Your task to perform on an android device: delete location history Image 0: 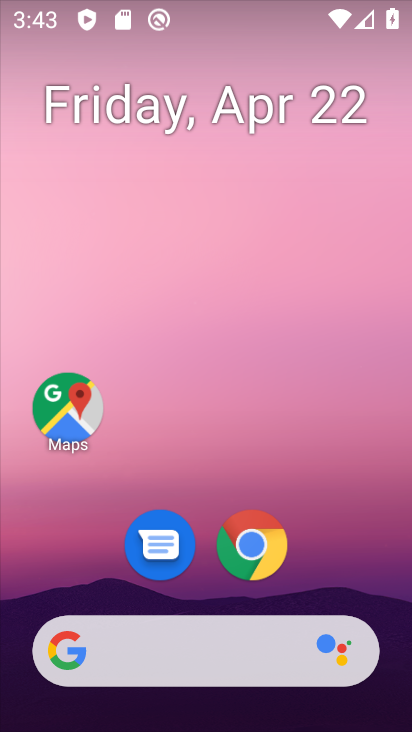
Step 0: drag from (217, 333) to (209, 192)
Your task to perform on an android device: delete location history Image 1: 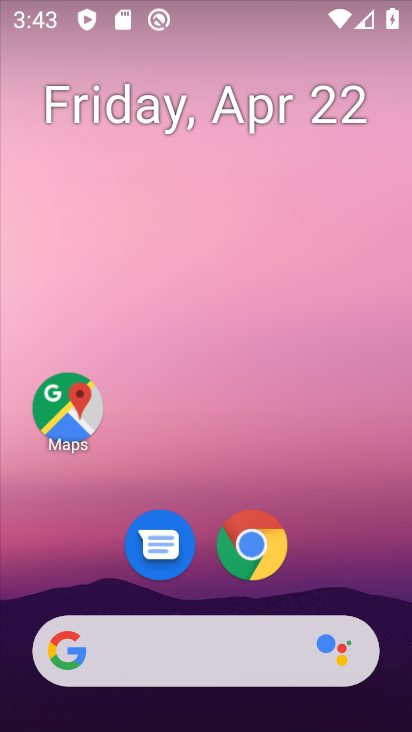
Step 1: drag from (228, 441) to (174, 8)
Your task to perform on an android device: delete location history Image 2: 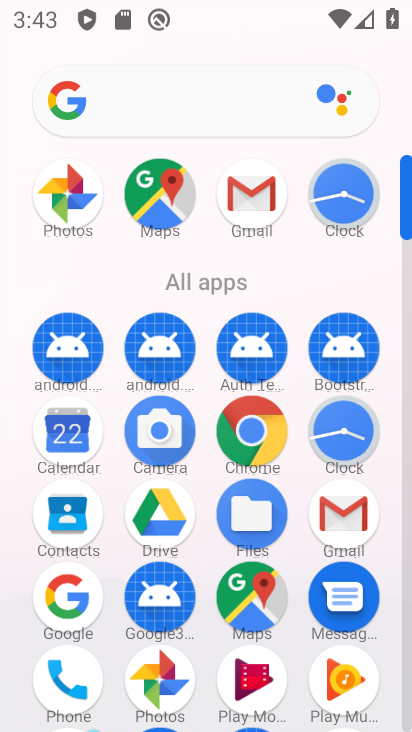
Step 2: drag from (216, 281) to (176, 73)
Your task to perform on an android device: delete location history Image 3: 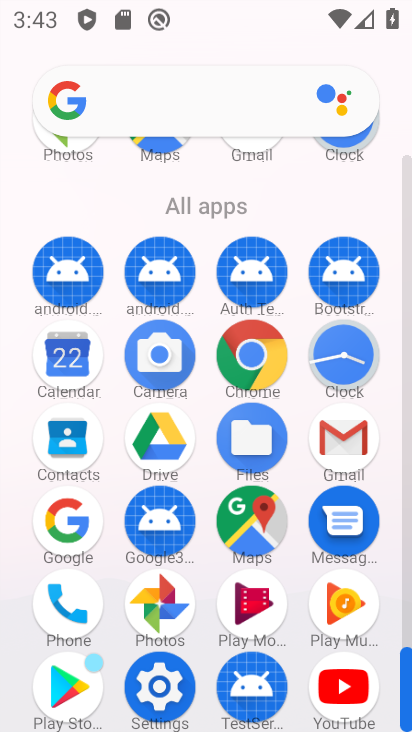
Step 3: click (159, 669)
Your task to perform on an android device: delete location history Image 4: 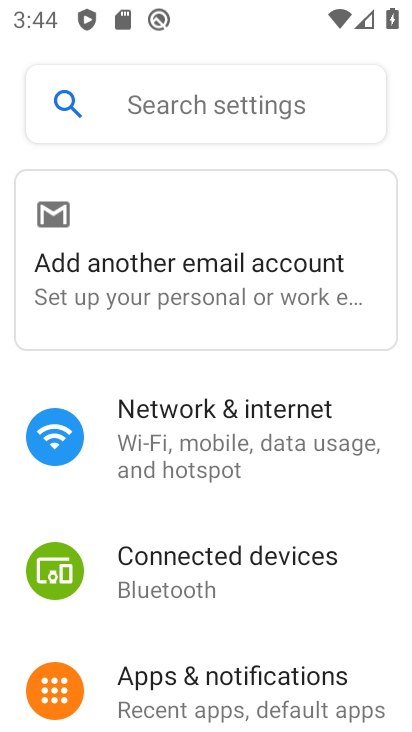
Step 4: drag from (270, 615) to (192, 212)
Your task to perform on an android device: delete location history Image 5: 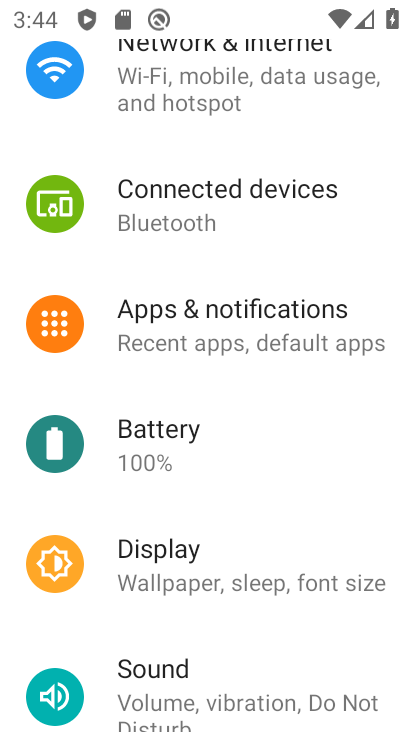
Step 5: drag from (283, 615) to (215, 184)
Your task to perform on an android device: delete location history Image 6: 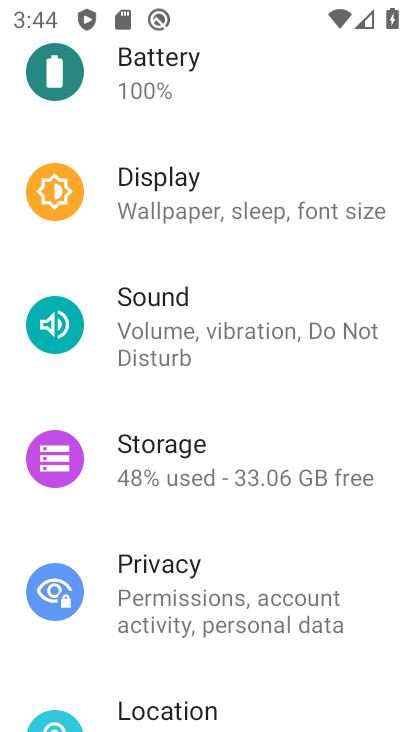
Step 6: click (229, 710)
Your task to perform on an android device: delete location history Image 7: 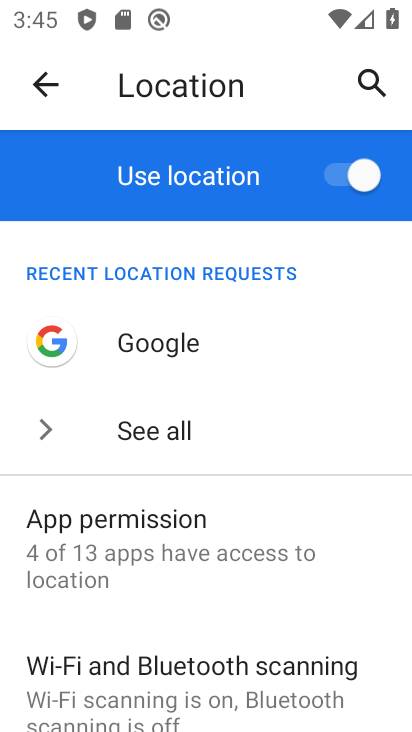
Step 7: drag from (211, 566) to (157, 214)
Your task to perform on an android device: delete location history Image 8: 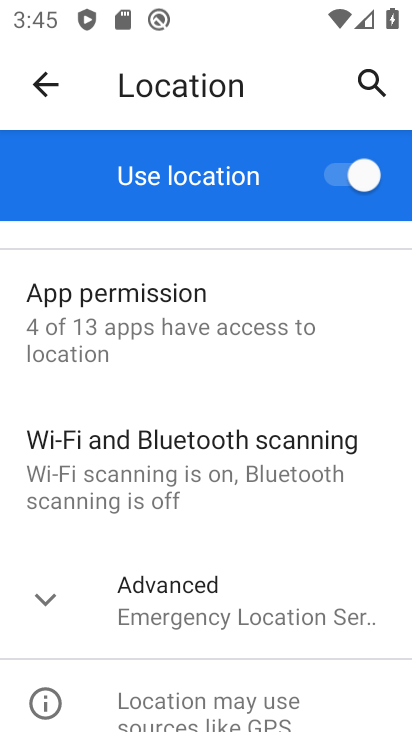
Step 8: click (206, 620)
Your task to perform on an android device: delete location history Image 9: 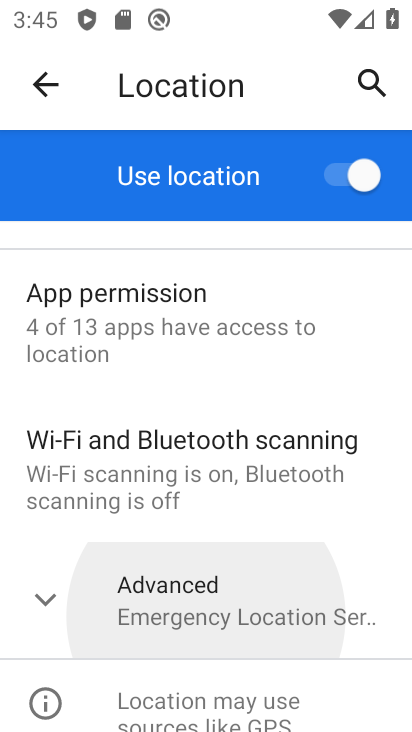
Step 9: drag from (197, 580) to (138, 226)
Your task to perform on an android device: delete location history Image 10: 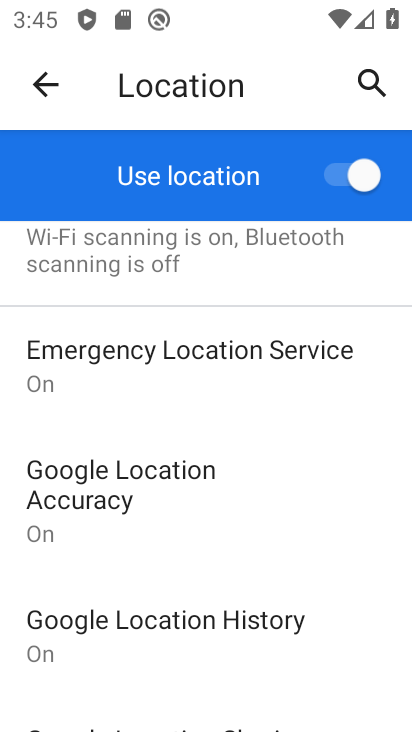
Step 10: click (189, 652)
Your task to perform on an android device: delete location history Image 11: 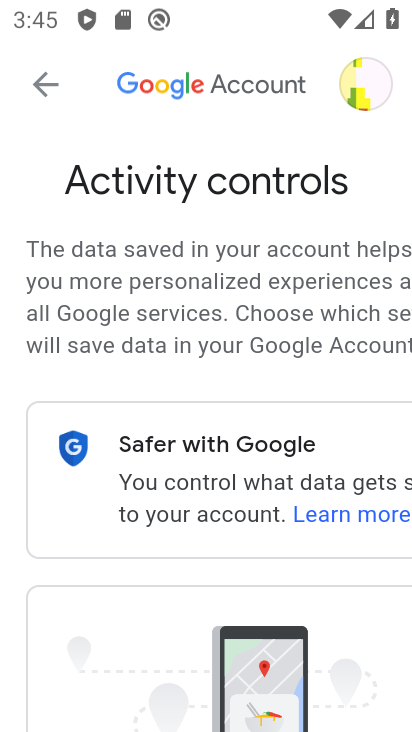
Step 11: drag from (250, 590) to (216, 289)
Your task to perform on an android device: delete location history Image 12: 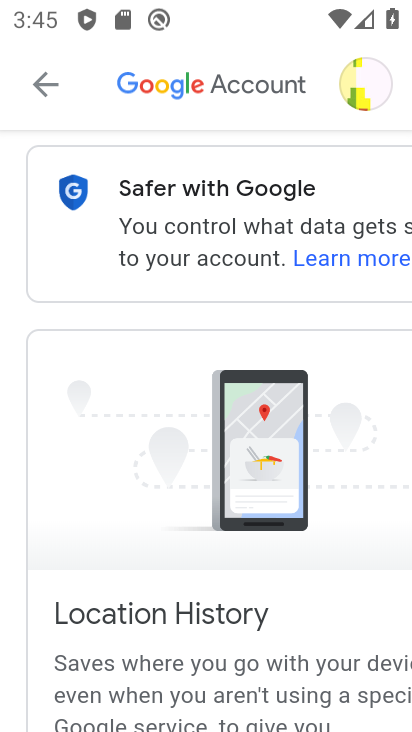
Step 12: drag from (304, 584) to (238, 221)
Your task to perform on an android device: delete location history Image 13: 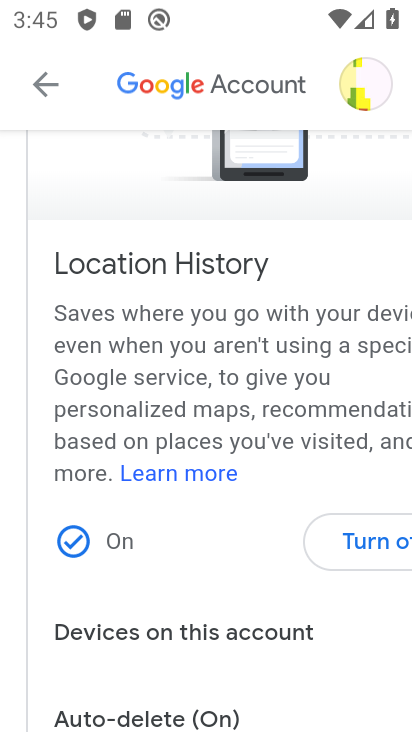
Step 13: drag from (336, 577) to (278, 266)
Your task to perform on an android device: delete location history Image 14: 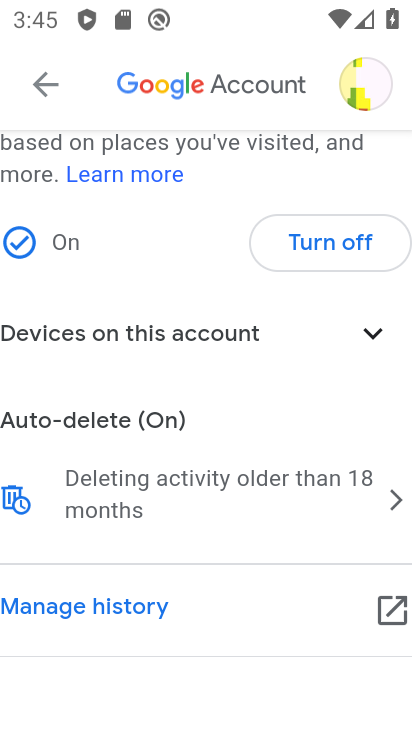
Step 14: click (303, 505)
Your task to perform on an android device: delete location history Image 15: 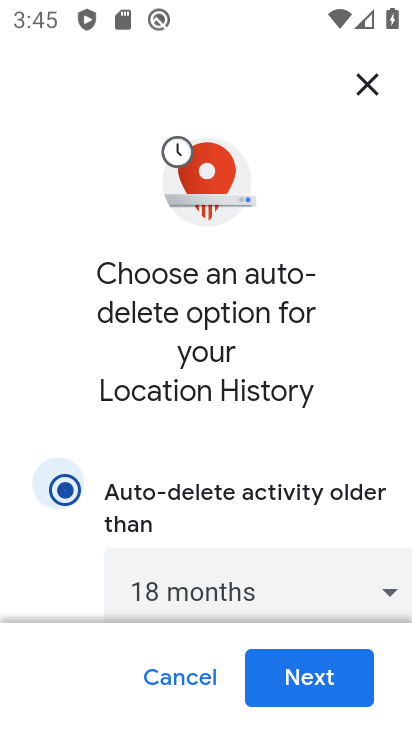
Step 15: drag from (252, 543) to (221, 336)
Your task to perform on an android device: delete location history Image 16: 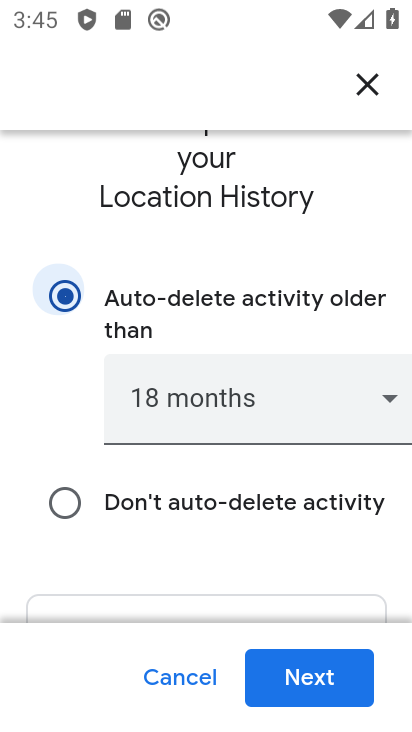
Step 16: click (292, 407)
Your task to perform on an android device: delete location history Image 17: 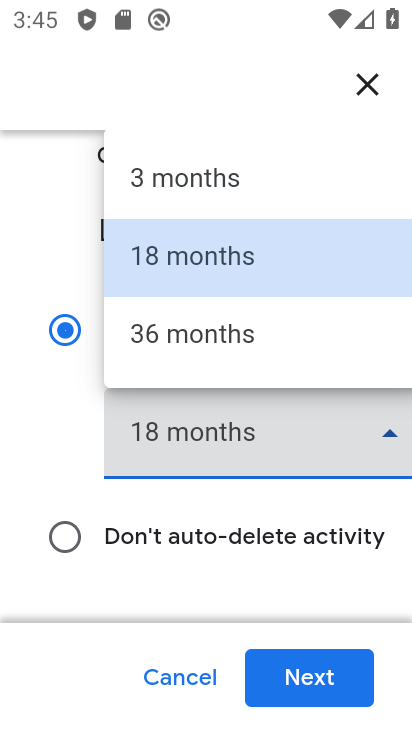
Step 17: click (135, 175)
Your task to perform on an android device: delete location history Image 18: 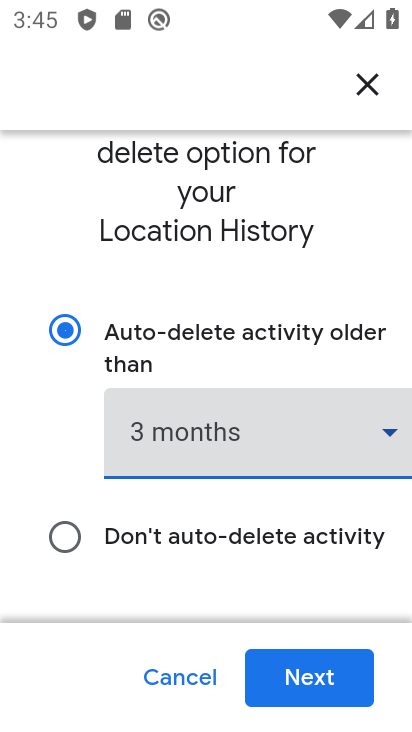
Step 18: click (320, 690)
Your task to perform on an android device: delete location history Image 19: 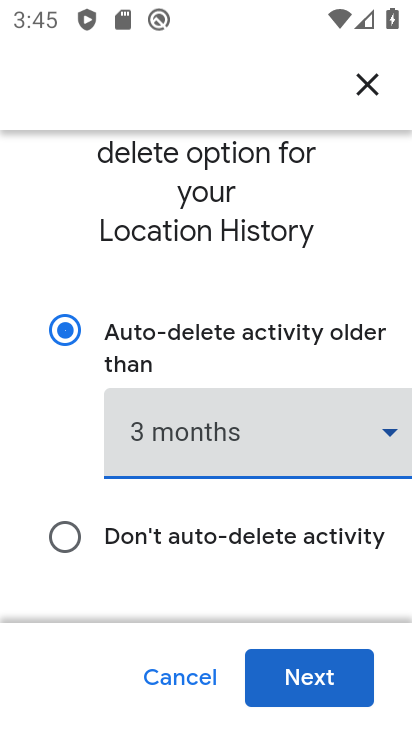
Step 19: click (320, 690)
Your task to perform on an android device: delete location history Image 20: 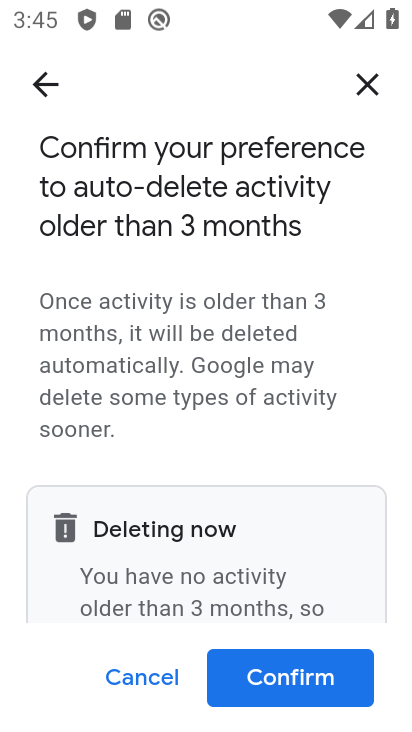
Step 20: click (320, 690)
Your task to perform on an android device: delete location history Image 21: 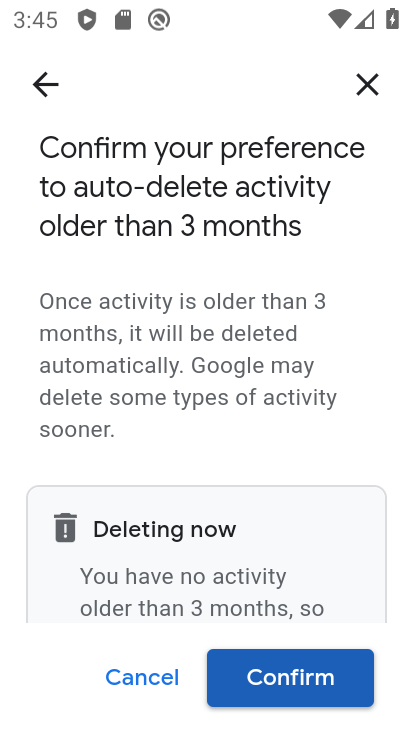
Step 21: click (321, 689)
Your task to perform on an android device: delete location history Image 22: 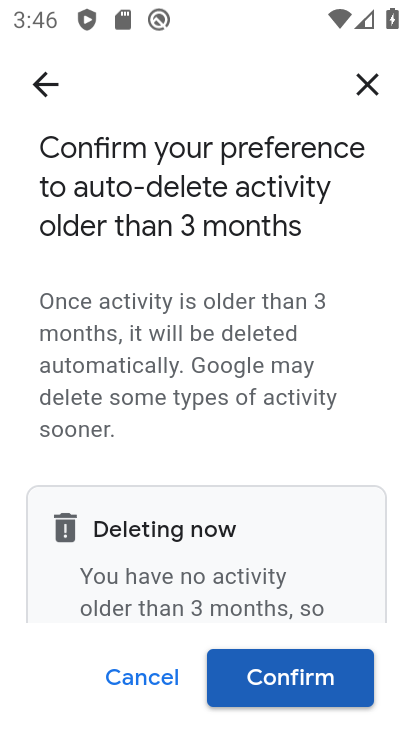
Step 22: click (313, 667)
Your task to perform on an android device: delete location history Image 23: 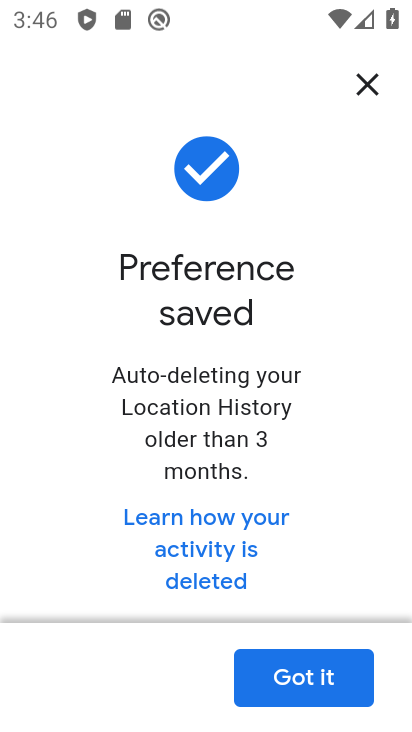
Step 23: click (316, 679)
Your task to perform on an android device: delete location history Image 24: 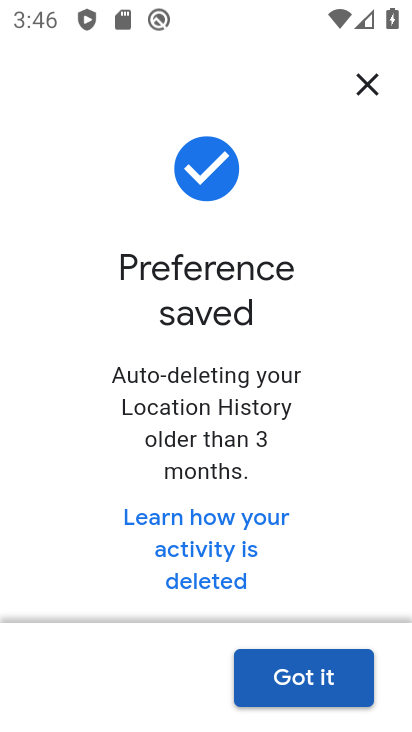
Step 24: click (324, 691)
Your task to perform on an android device: delete location history Image 25: 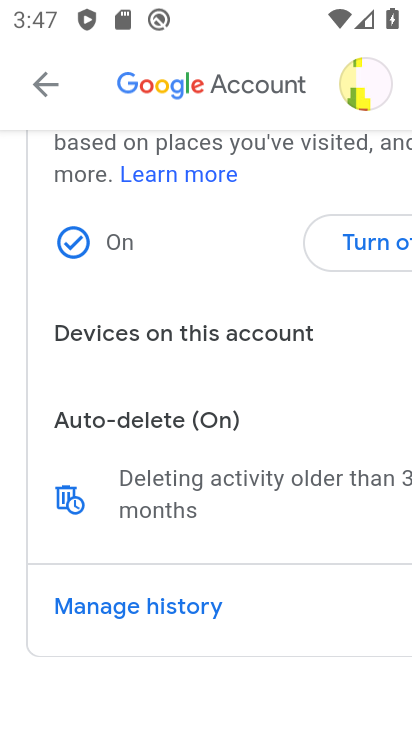
Step 25: task complete